Your task to perform on an android device: turn off picture-in-picture Image 0: 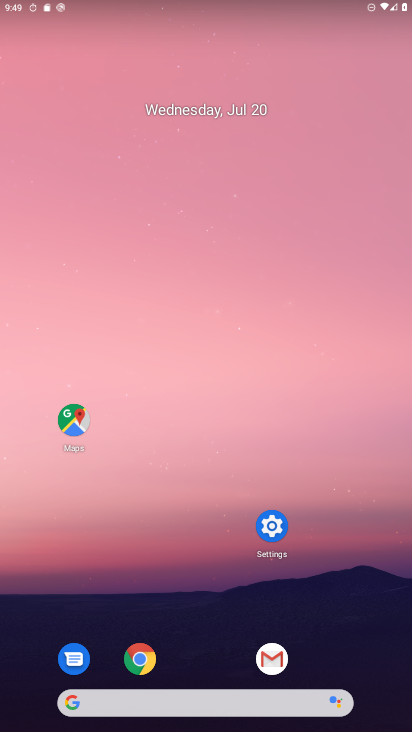
Step 0: drag from (294, 701) to (222, 250)
Your task to perform on an android device: turn off picture-in-picture Image 1: 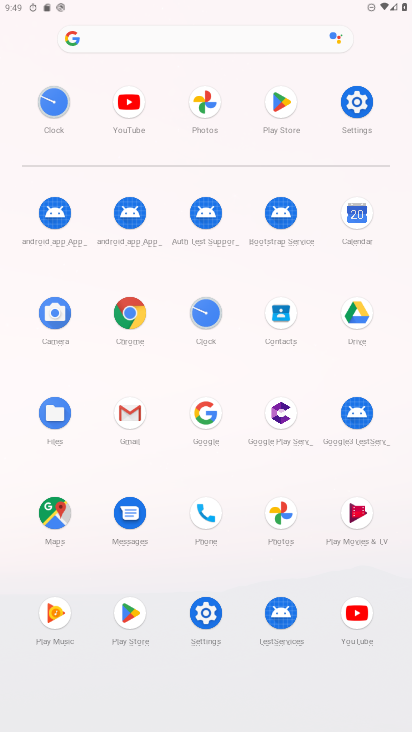
Step 1: click (354, 608)
Your task to perform on an android device: turn off picture-in-picture Image 2: 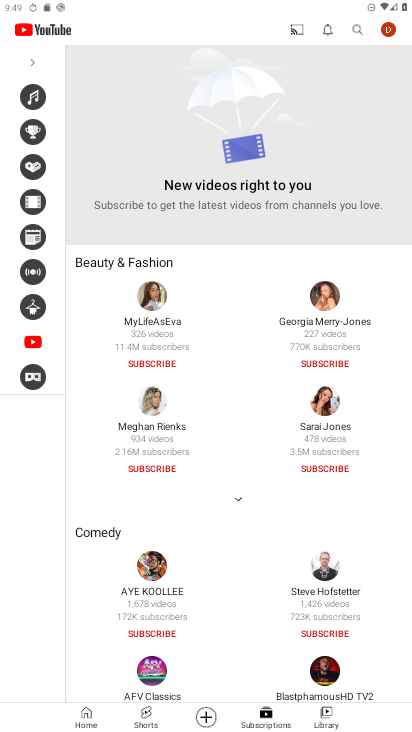
Step 2: click (386, 32)
Your task to perform on an android device: turn off picture-in-picture Image 3: 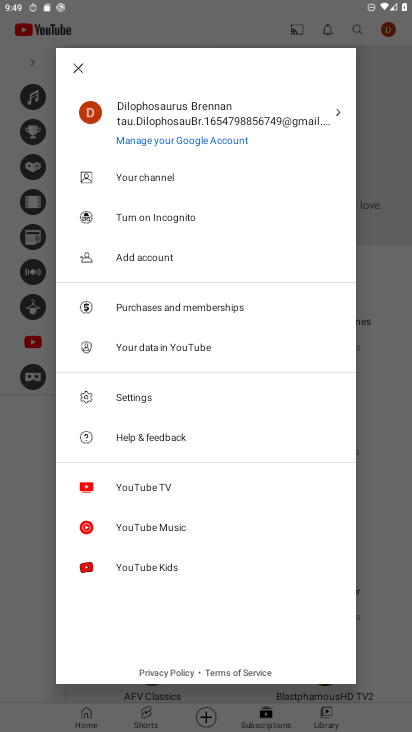
Step 3: click (132, 399)
Your task to perform on an android device: turn off picture-in-picture Image 4: 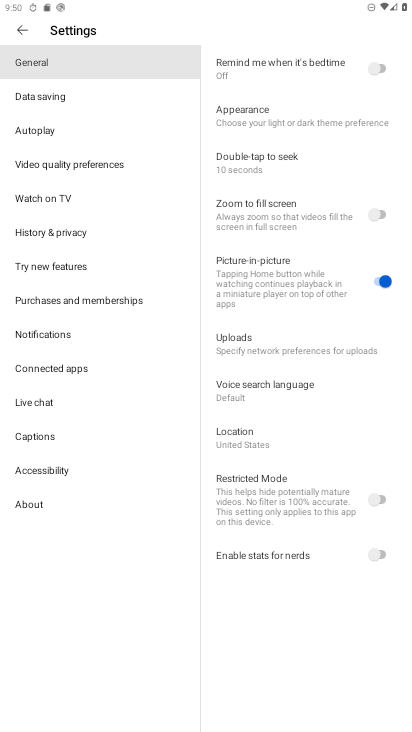
Step 4: click (286, 284)
Your task to perform on an android device: turn off picture-in-picture Image 5: 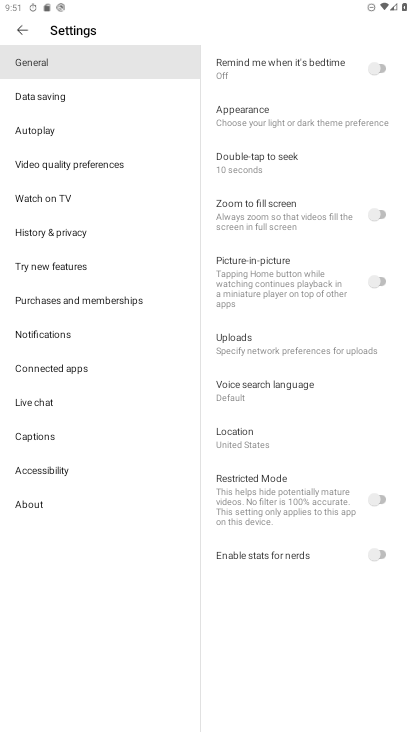
Step 5: task complete